Your task to perform on an android device: find photos in the google photos app Image 0: 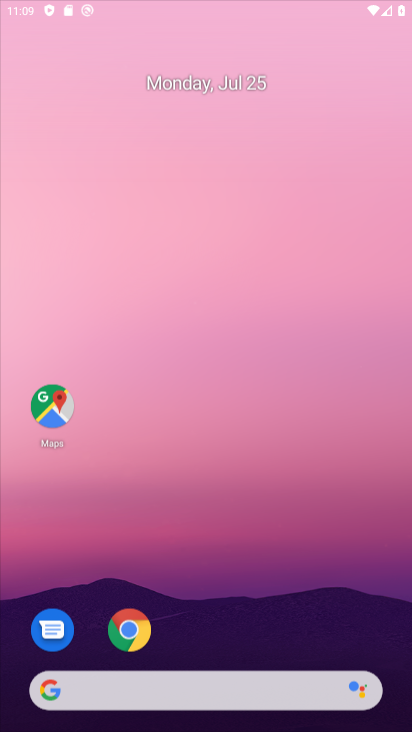
Step 0: drag from (278, 433) to (268, 150)
Your task to perform on an android device: find photos in the google photos app Image 1: 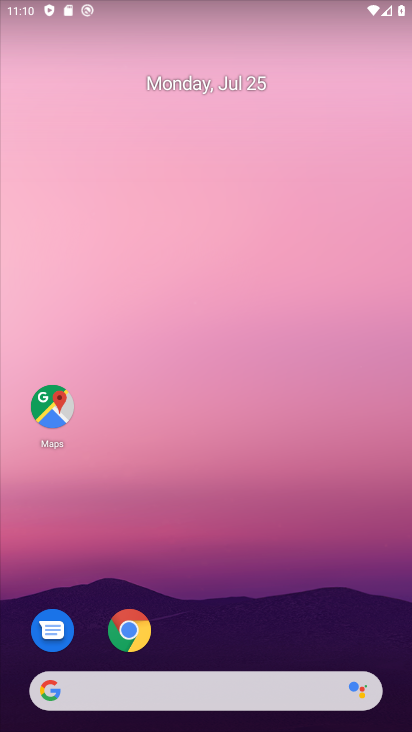
Step 1: drag from (269, 242) to (327, 128)
Your task to perform on an android device: find photos in the google photos app Image 2: 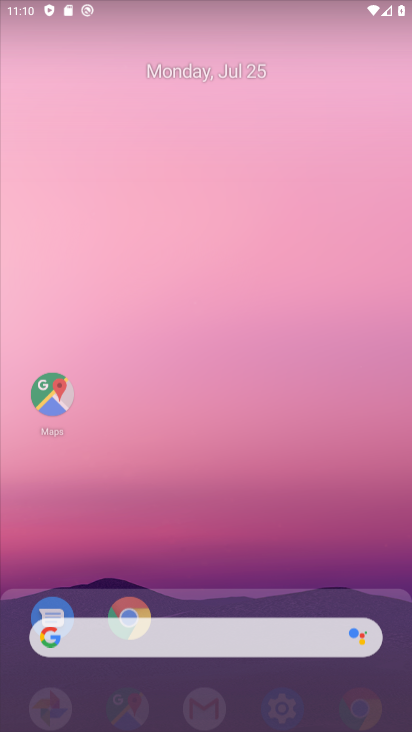
Step 2: drag from (313, 454) to (324, 68)
Your task to perform on an android device: find photos in the google photos app Image 3: 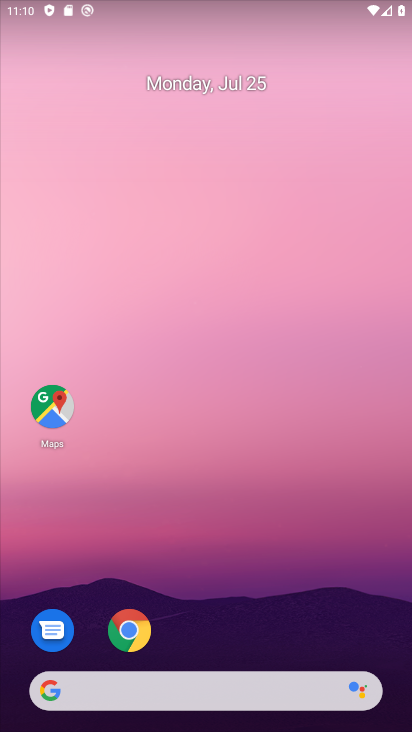
Step 3: drag from (199, 291) to (175, 129)
Your task to perform on an android device: find photos in the google photos app Image 4: 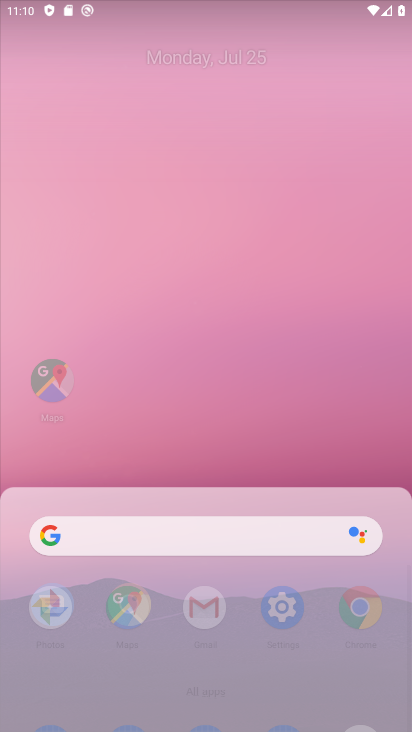
Step 4: click (157, 233)
Your task to perform on an android device: find photos in the google photos app Image 5: 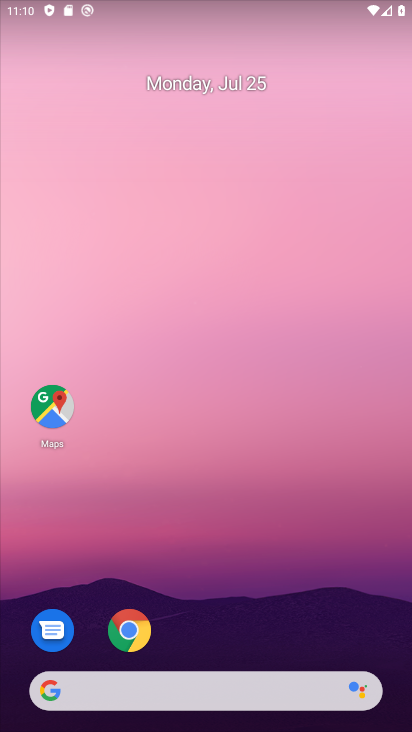
Step 5: drag from (162, 622) to (188, 173)
Your task to perform on an android device: find photos in the google photos app Image 6: 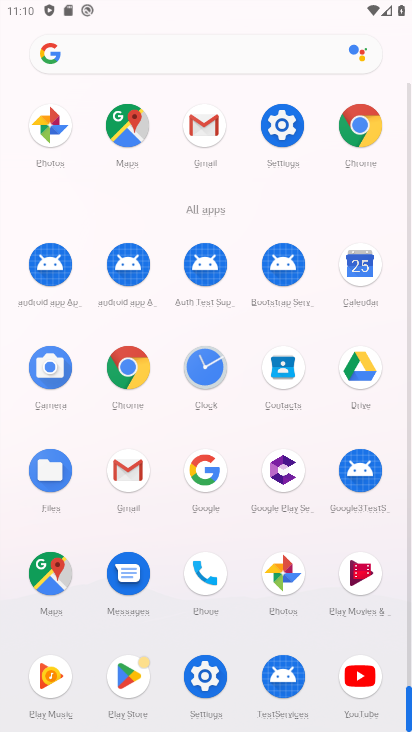
Step 6: drag from (286, 557) to (229, 141)
Your task to perform on an android device: find photos in the google photos app Image 7: 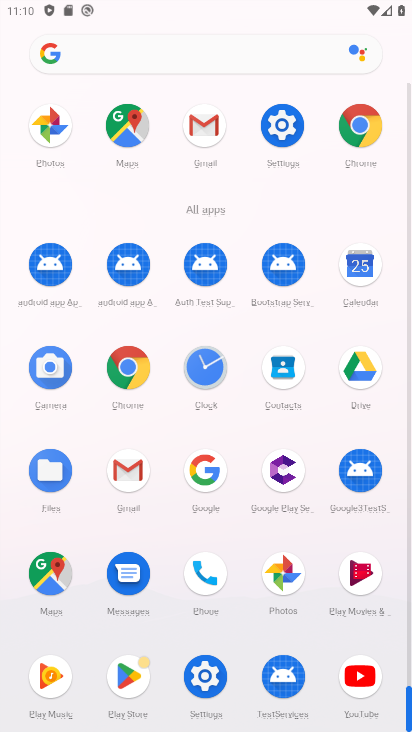
Step 7: drag from (207, 454) to (207, 220)
Your task to perform on an android device: find photos in the google photos app Image 8: 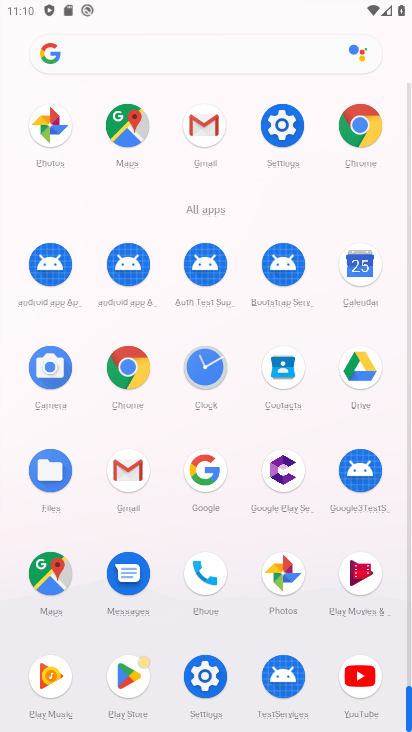
Step 8: click (284, 578)
Your task to perform on an android device: find photos in the google photos app Image 9: 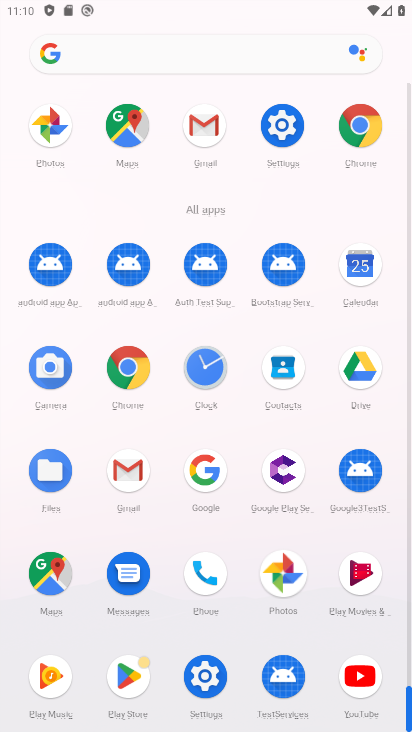
Step 9: click (273, 569)
Your task to perform on an android device: find photos in the google photos app Image 10: 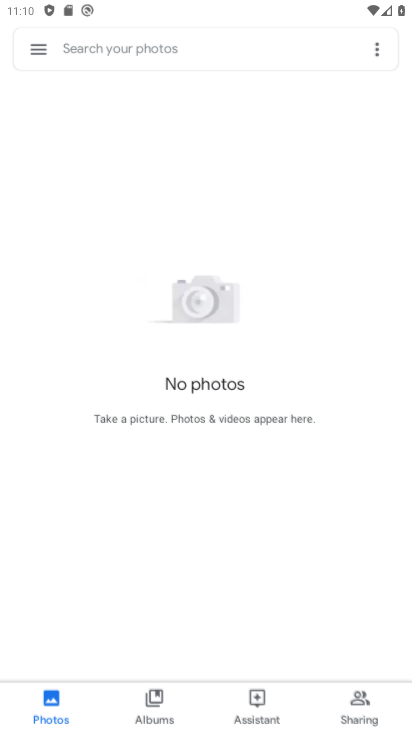
Step 10: click (277, 577)
Your task to perform on an android device: find photos in the google photos app Image 11: 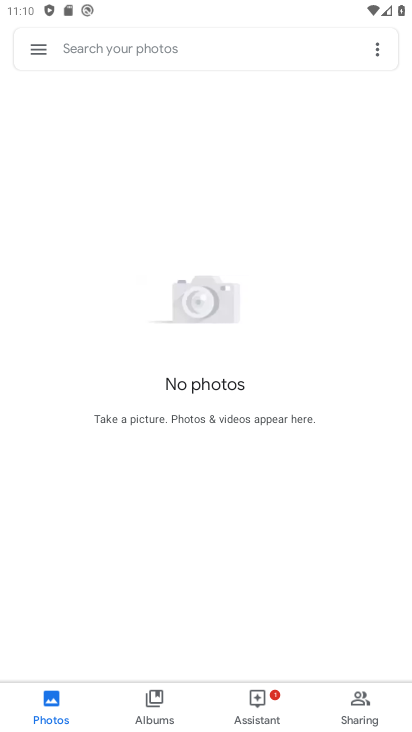
Step 11: click (276, 577)
Your task to perform on an android device: find photos in the google photos app Image 12: 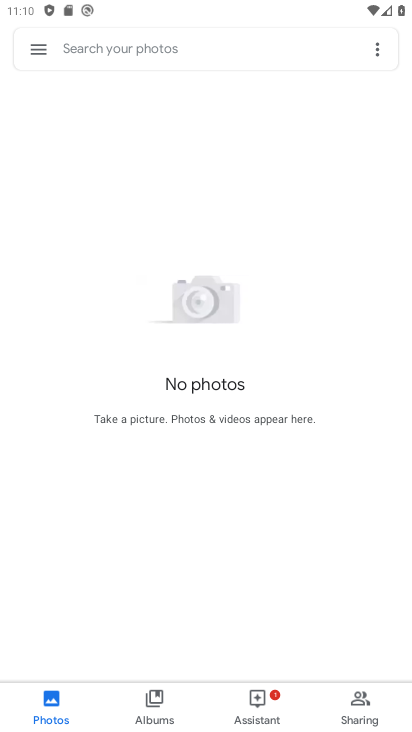
Step 12: task complete